Your task to perform on an android device: Open wifi settings Image 0: 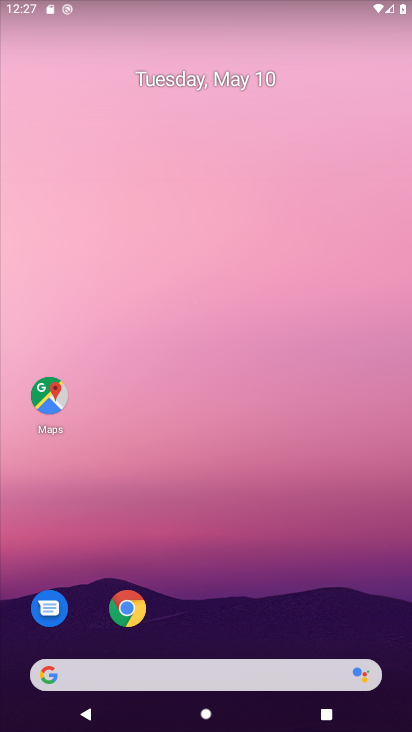
Step 0: drag from (236, 614) to (249, 104)
Your task to perform on an android device: Open wifi settings Image 1: 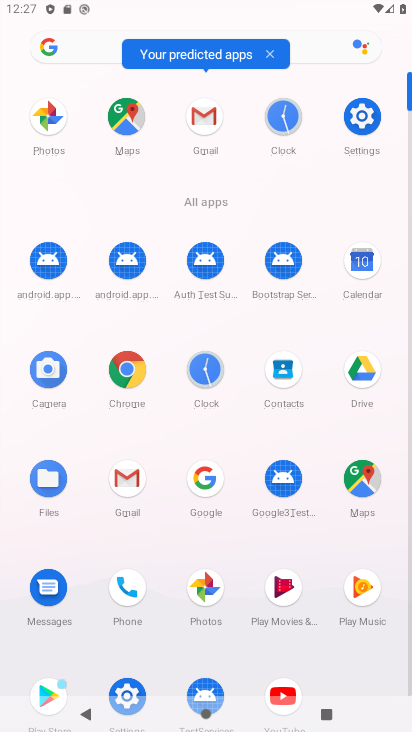
Step 1: click (360, 117)
Your task to perform on an android device: Open wifi settings Image 2: 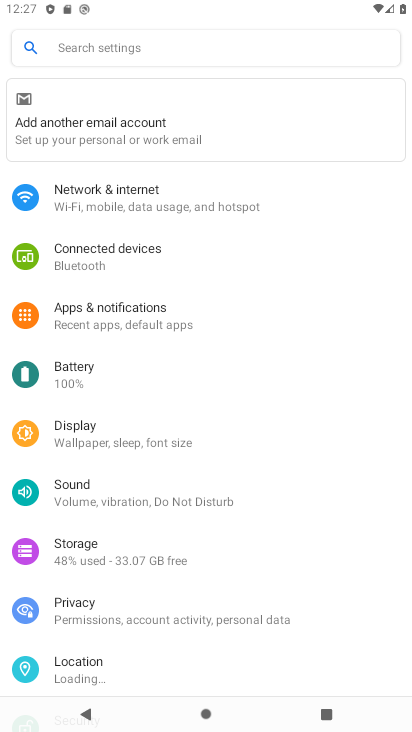
Step 2: drag from (149, 118) to (188, 41)
Your task to perform on an android device: Open wifi settings Image 3: 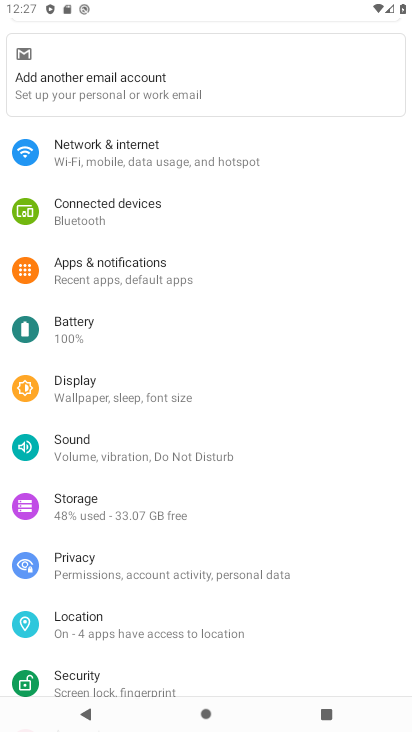
Step 3: click (155, 141)
Your task to perform on an android device: Open wifi settings Image 4: 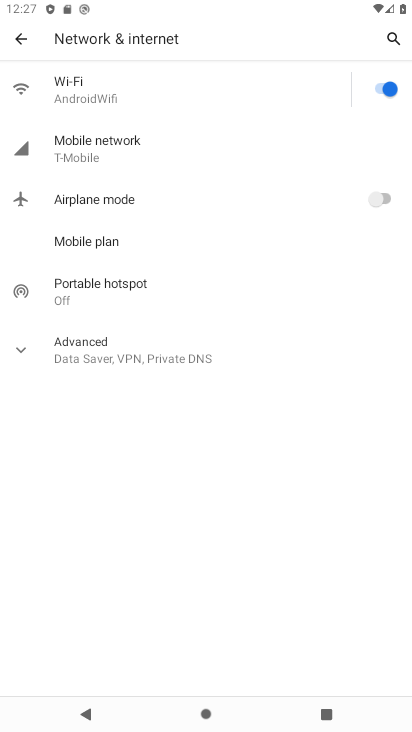
Step 4: click (174, 79)
Your task to perform on an android device: Open wifi settings Image 5: 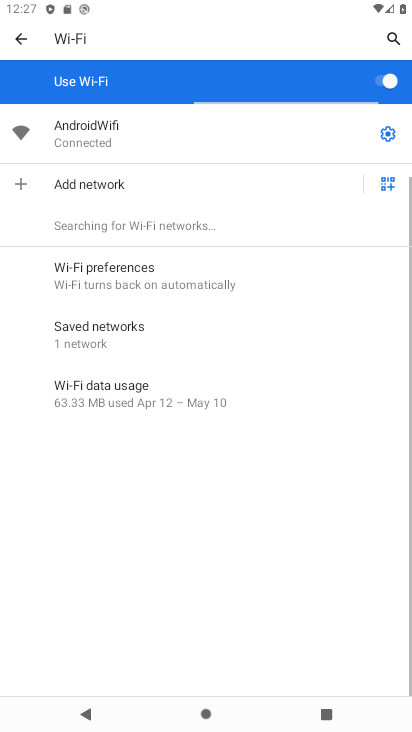
Step 5: click (384, 132)
Your task to perform on an android device: Open wifi settings Image 6: 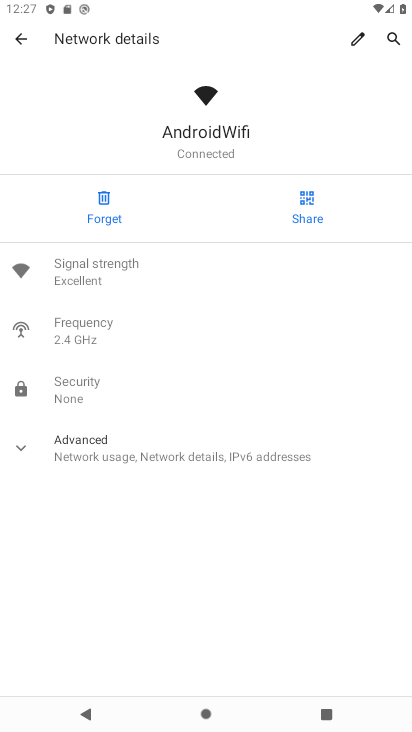
Step 6: task complete